Your task to perform on an android device: open wifi settings Image 0: 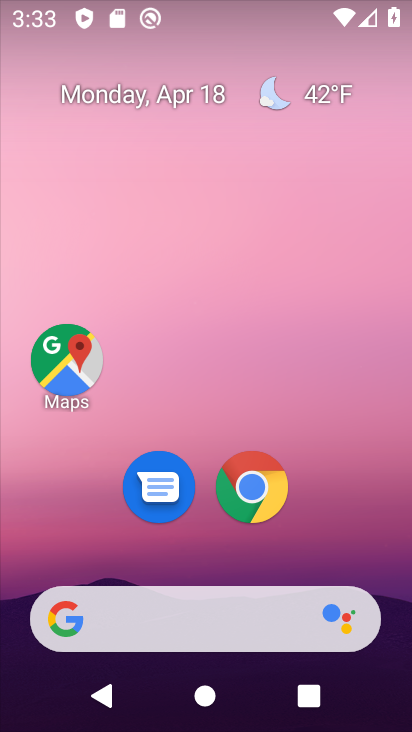
Step 0: drag from (216, 528) to (200, 10)
Your task to perform on an android device: open wifi settings Image 1: 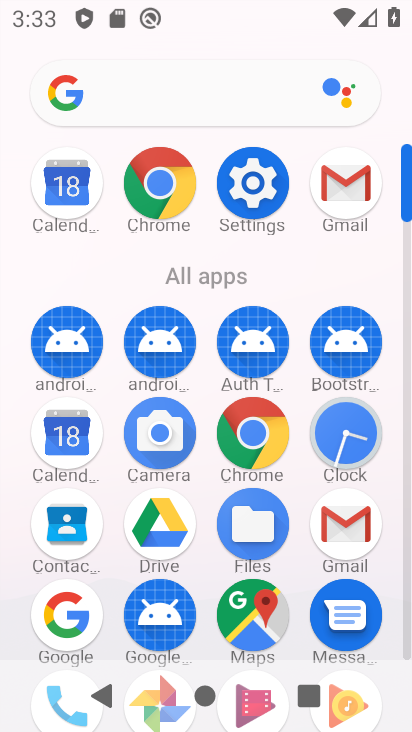
Step 1: click (268, 188)
Your task to perform on an android device: open wifi settings Image 2: 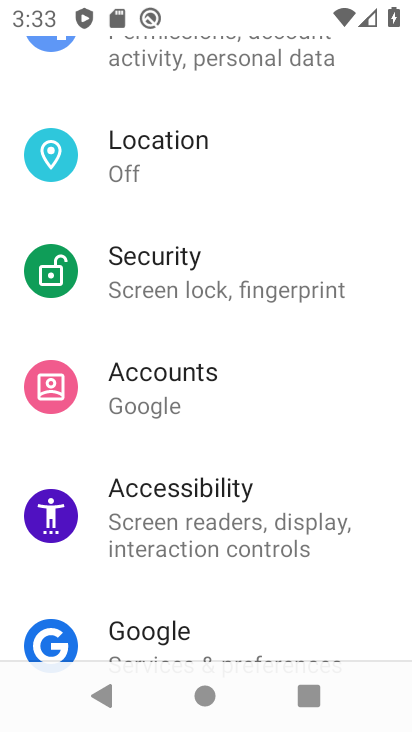
Step 2: drag from (241, 120) to (225, 629)
Your task to perform on an android device: open wifi settings Image 3: 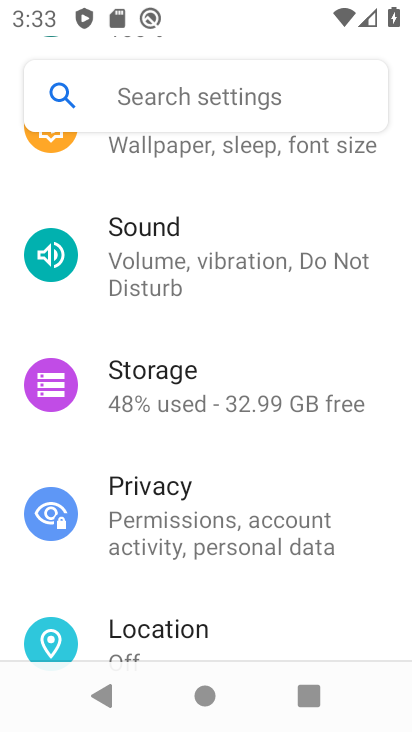
Step 3: drag from (232, 189) to (219, 642)
Your task to perform on an android device: open wifi settings Image 4: 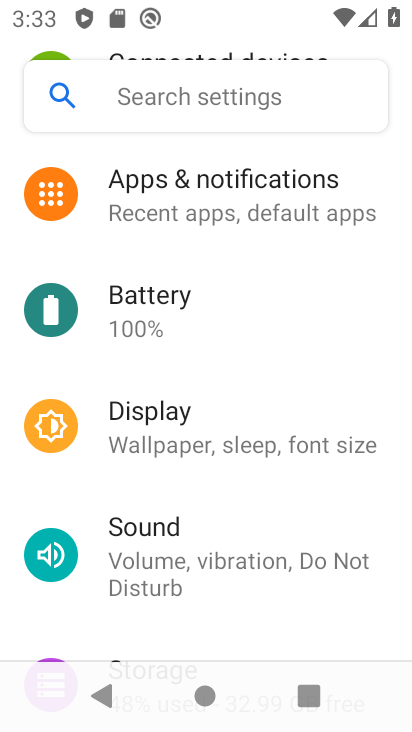
Step 4: drag from (221, 574) to (196, 648)
Your task to perform on an android device: open wifi settings Image 5: 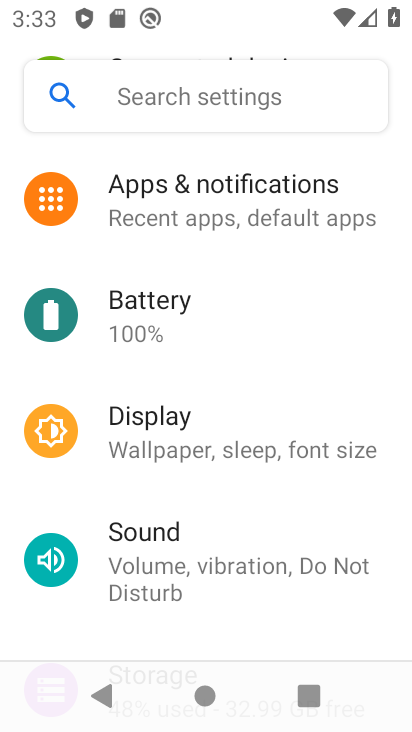
Step 5: drag from (256, 261) to (186, 610)
Your task to perform on an android device: open wifi settings Image 6: 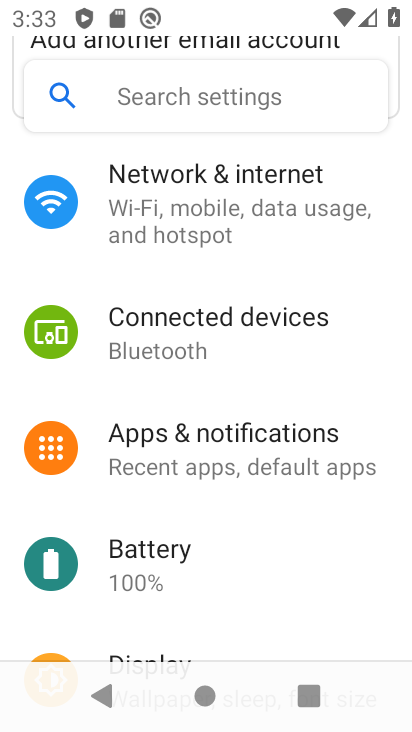
Step 6: click (217, 197)
Your task to perform on an android device: open wifi settings Image 7: 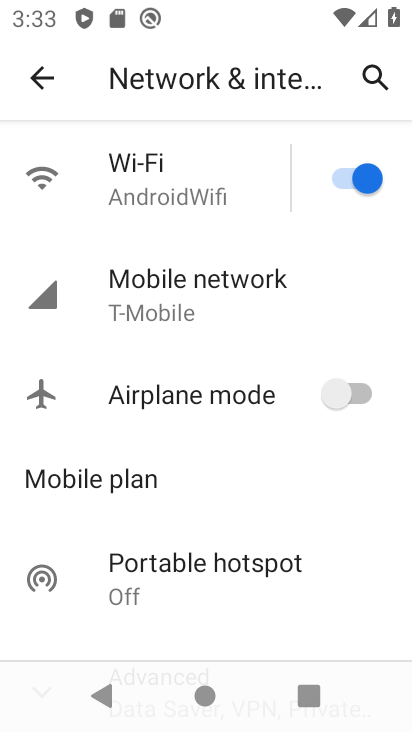
Step 7: click (179, 196)
Your task to perform on an android device: open wifi settings Image 8: 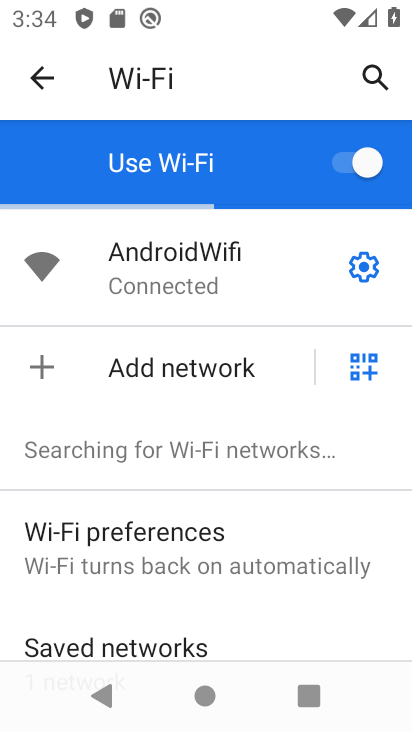
Step 8: task complete